Your task to perform on an android device: Open Wikipedia Image 0: 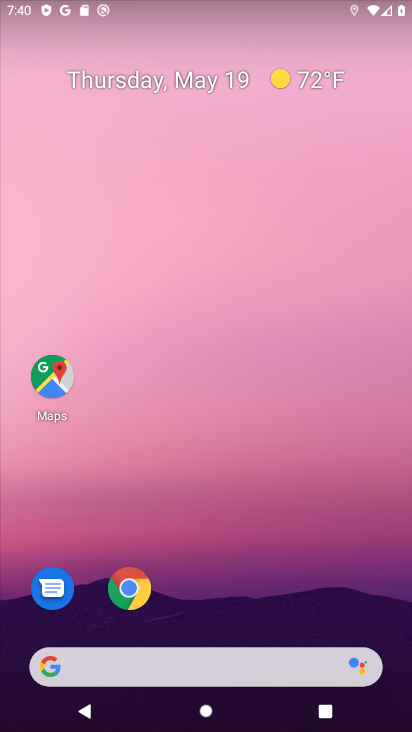
Step 0: click (127, 590)
Your task to perform on an android device: Open Wikipedia Image 1: 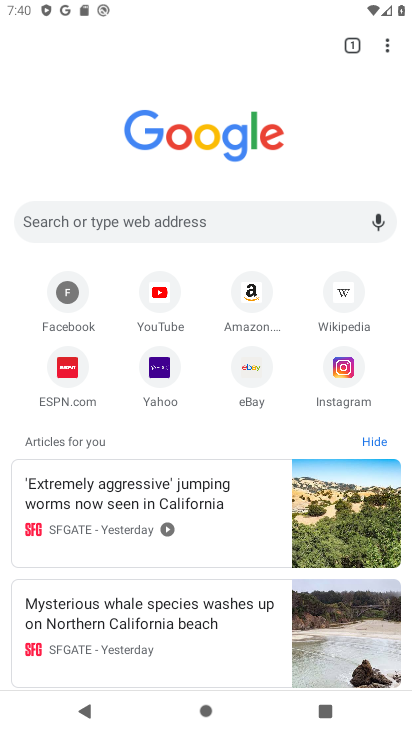
Step 1: click (349, 301)
Your task to perform on an android device: Open Wikipedia Image 2: 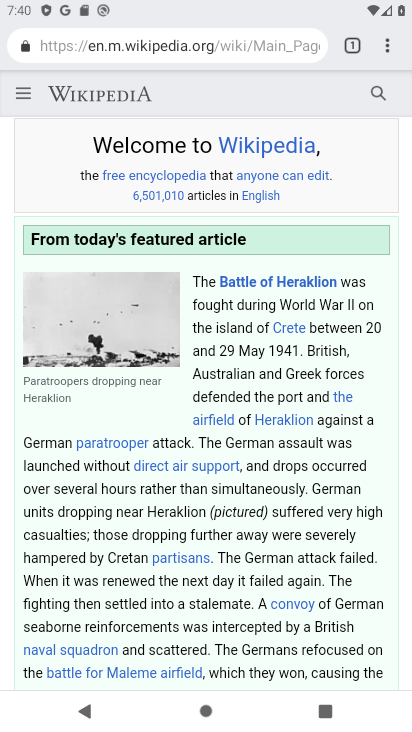
Step 2: task complete